Your task to perform on an android device: Go to location settings Image 0: 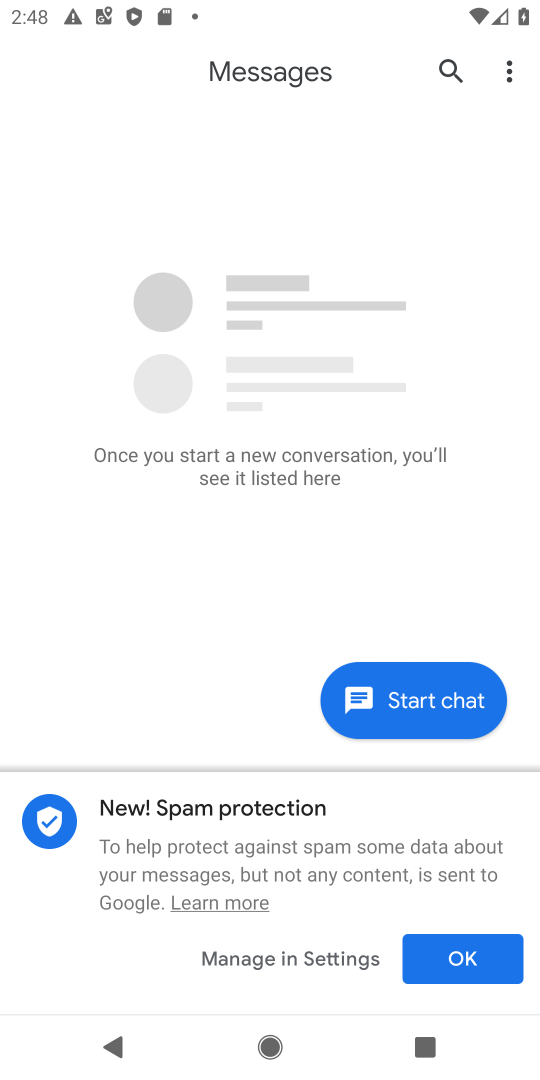
Step 0: press back button
Your task to perform on an android device: Go to location settings Image 1: 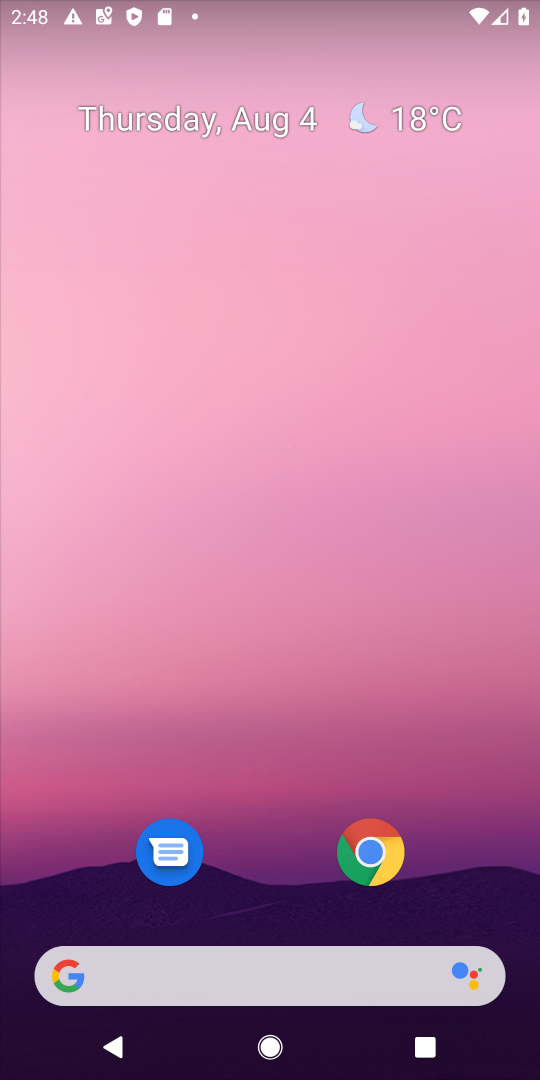
Step 1: drag from (252, 840) to (366, 46)
Your task to perform on an android device: Go to location settings Image 2: 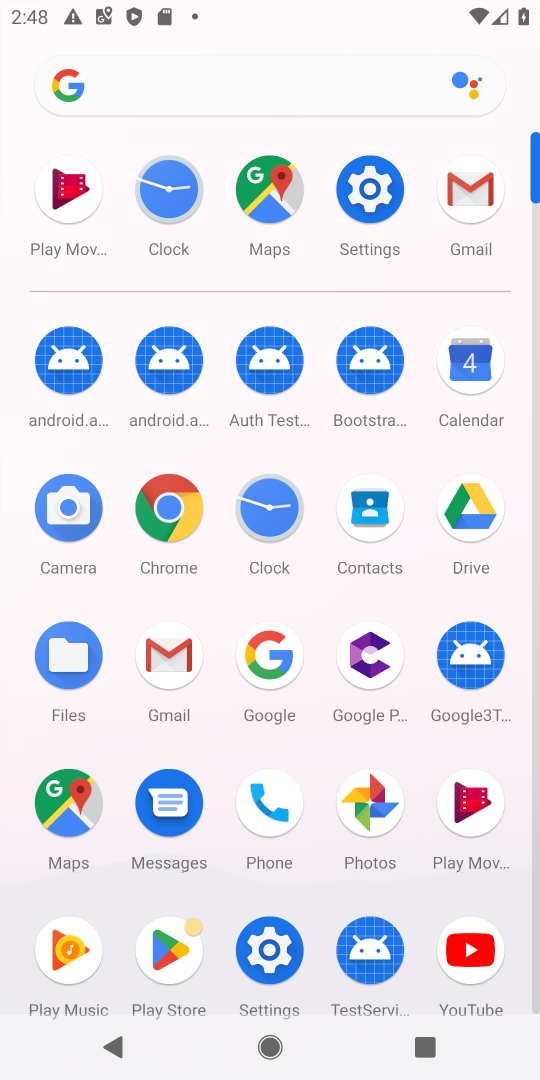
Step 2: click (349, 188)
Your task to perform on an android device: Go to location settings Image 3: 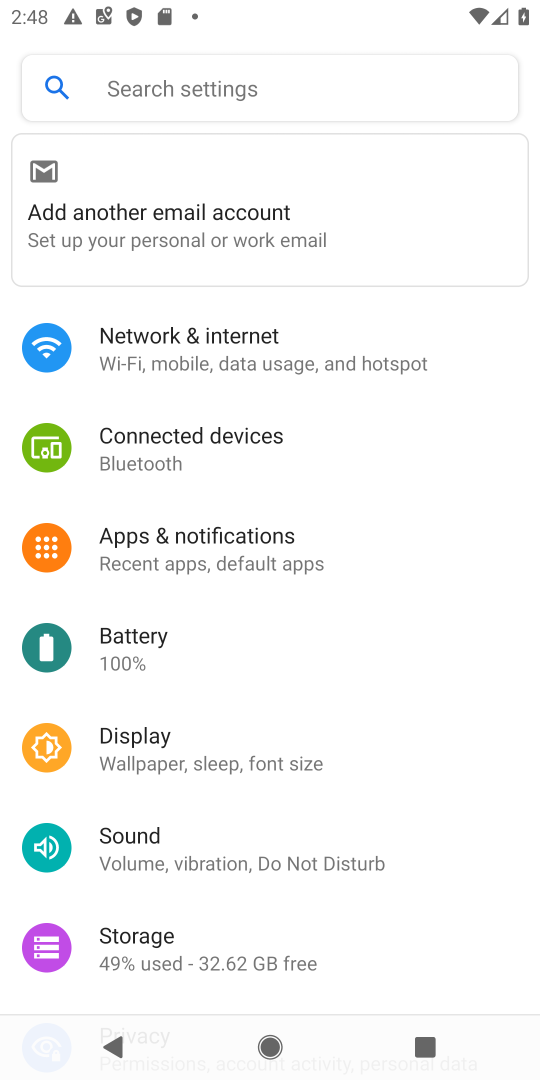
Step 3: drag from (213, 901) to (393, 163)
Your task to perform on an android device: Go to location settings Image 4: 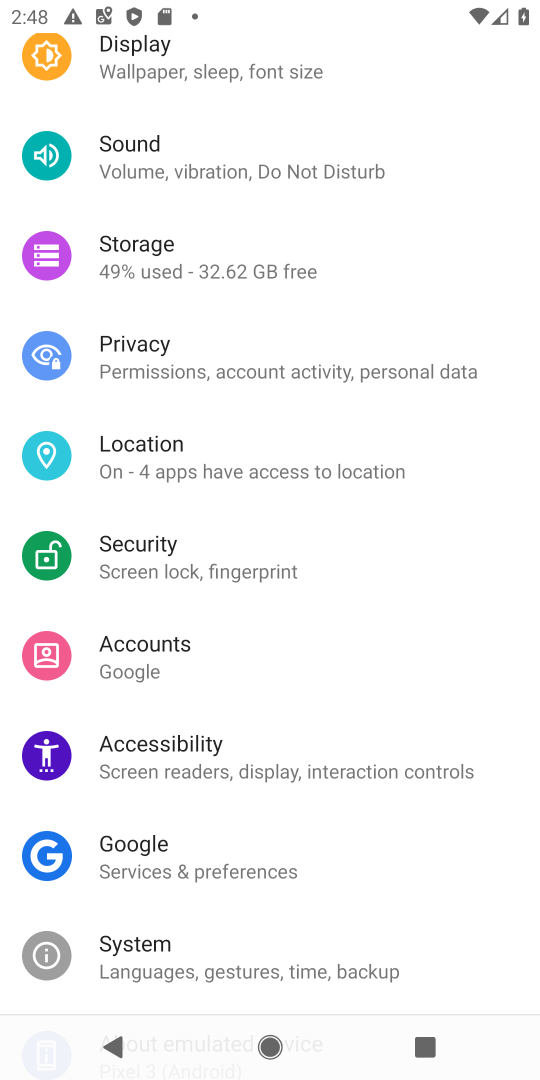
Step 4: click (145, 461)
Your task to perform on an android device: Go to location settings Image 5: 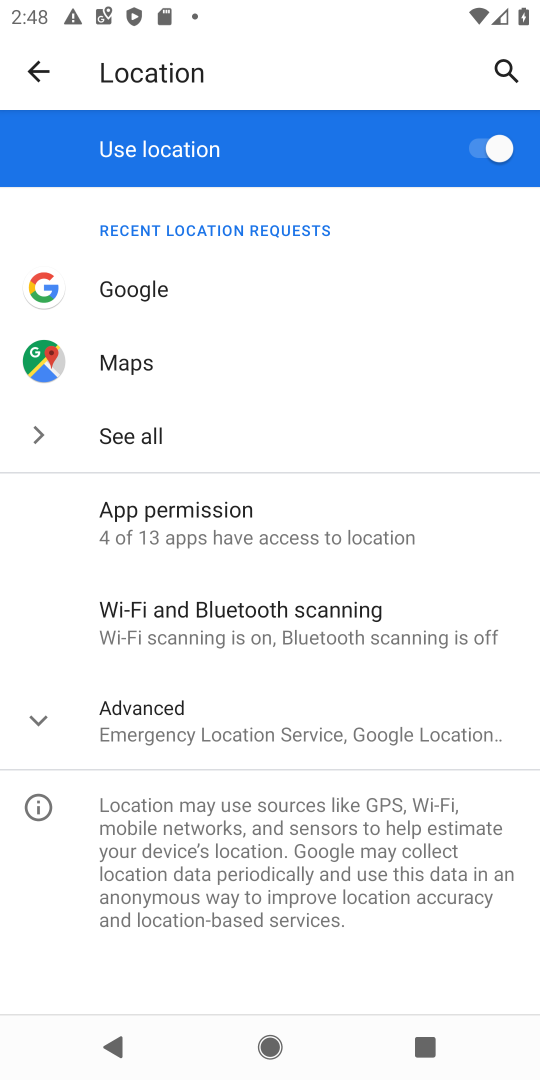
Step 5: task complete